Your task to perform on an android device: change the clock display to digital Image 0: 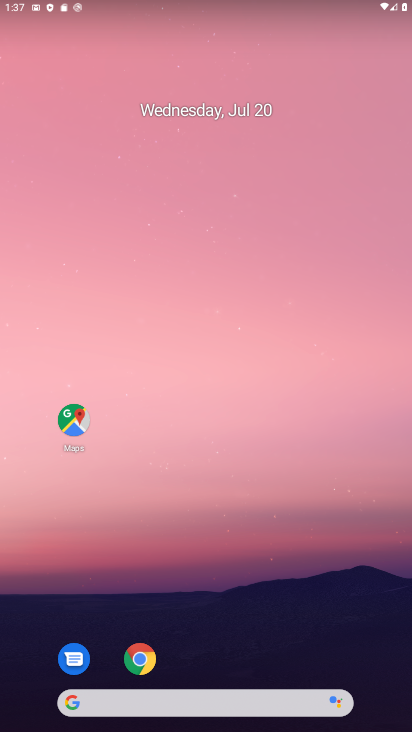
Step 0: drag from (299, 603) to (213, 23)
Your task to perform on an android device: change the clock display to digital Image 1: 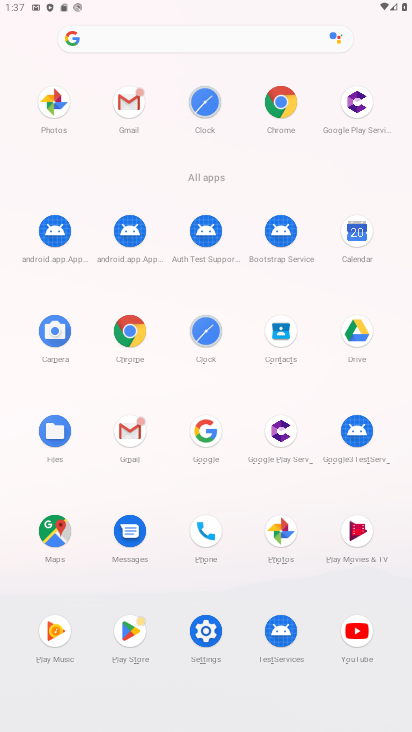
Step 1: click (214, 335)
Your task to perform on an android device: change the clock display to digital Image 2: 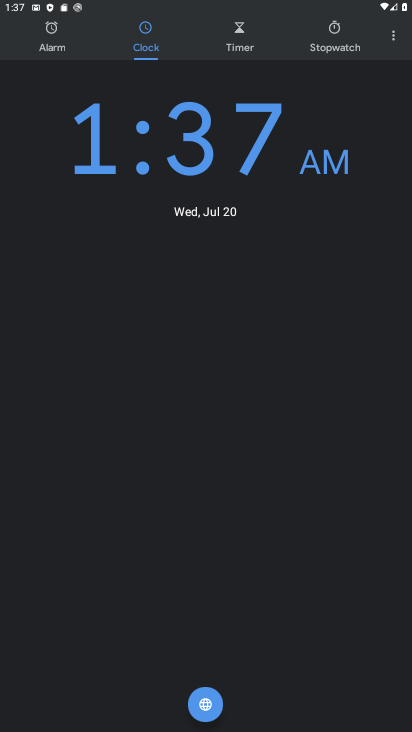
Step 2: click (397, 29)
Your task to perform on an android device: change the clock display to digital Image 3: 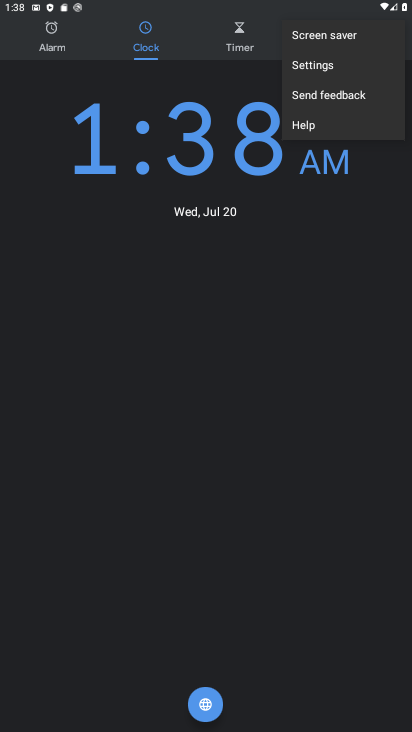
Step 3: click (344, 69)
Your task to perform on an android device: change the clock display to digital Image 4: 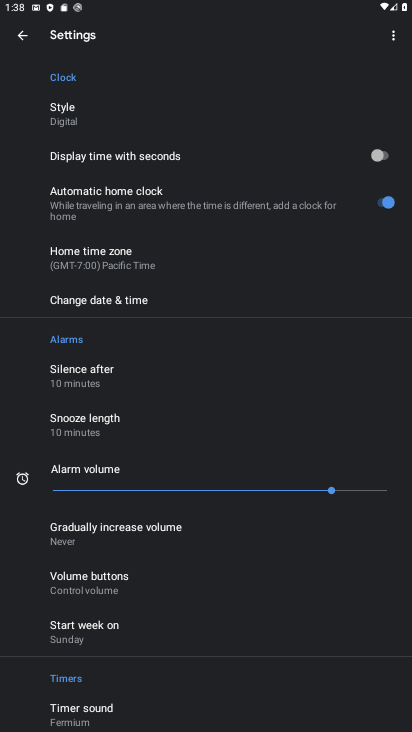
Step 4: task complete